Your task to perform on an android device: check google app version Image 0: 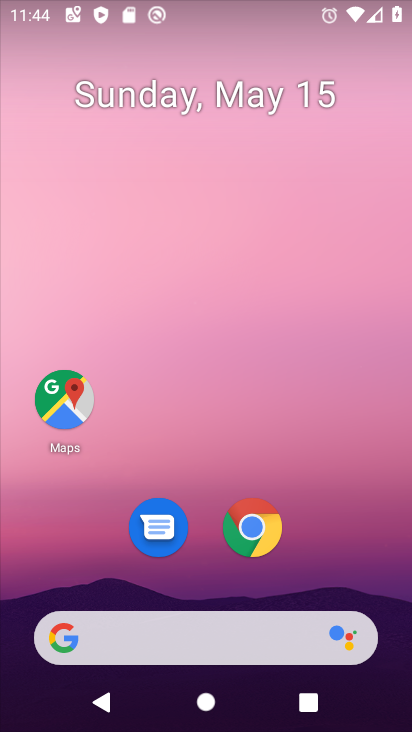
Step 0: click (280, 528)
Your task to perform on an android device: check google app version Image 1: 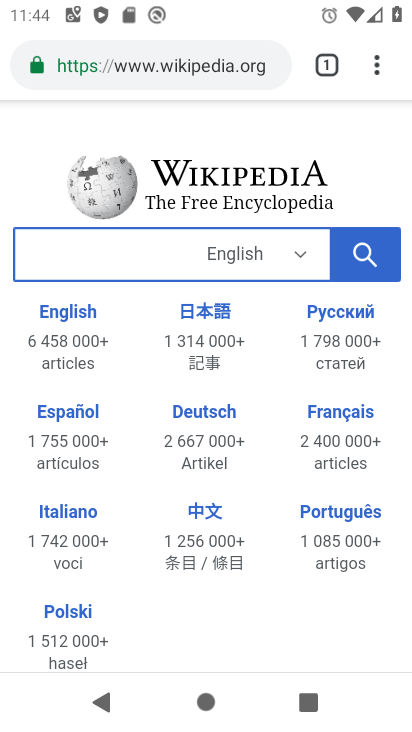
Step 1: click (385, 66)
Your task to perform on an android device: check google app version Image 2: 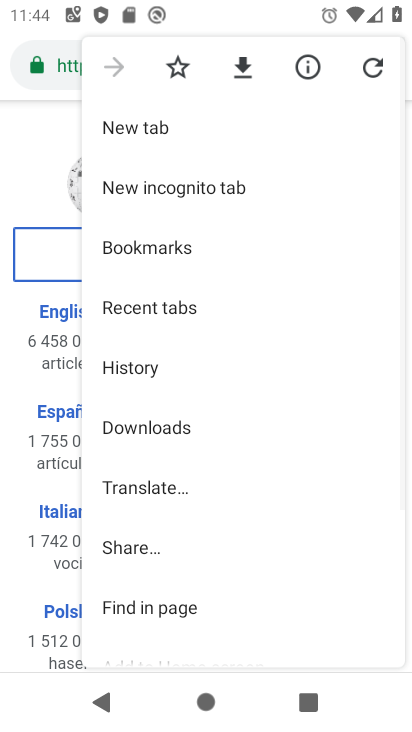
Step 2: drag from (217, 639) to (211, 262)
Your task to perform on an android device: check google app version Image 3: 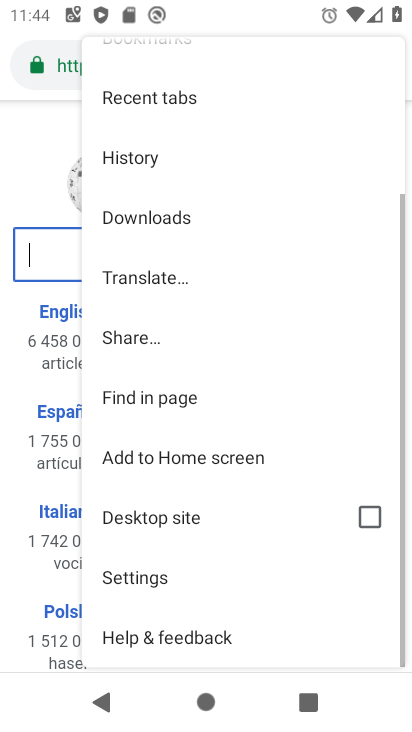
Step 3: drag from (225, 506) to (283, 194)
Your task to perform on an android device: check google app version Image 4: 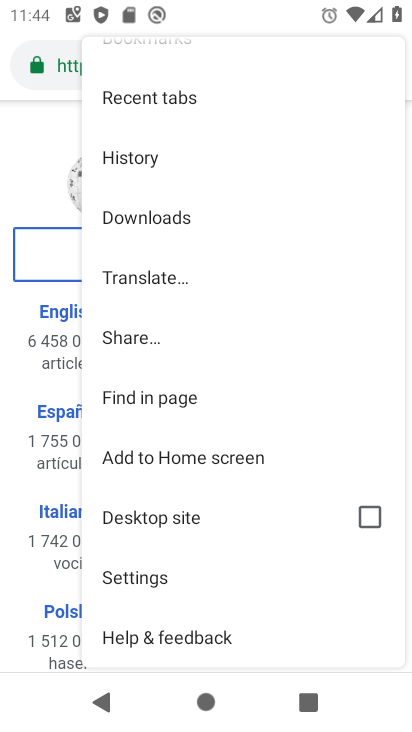
Step 4: click (211, 619)
Your task to perform on an android device: check google app version Image 5: 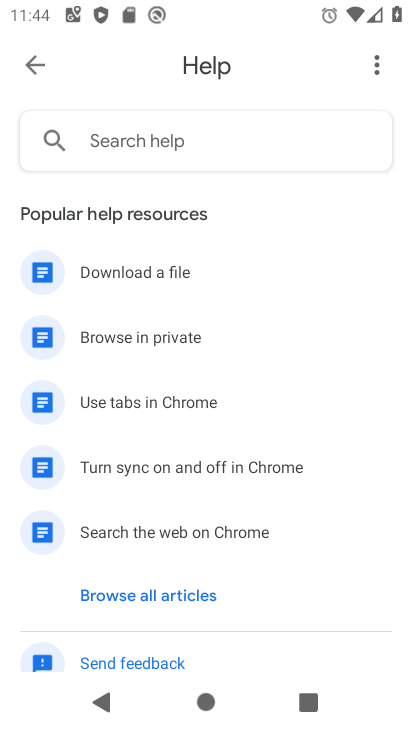
Step 5: drag from (219, 523) to (244, 56)
Your task to perform on an android device: check google app version Image 6: 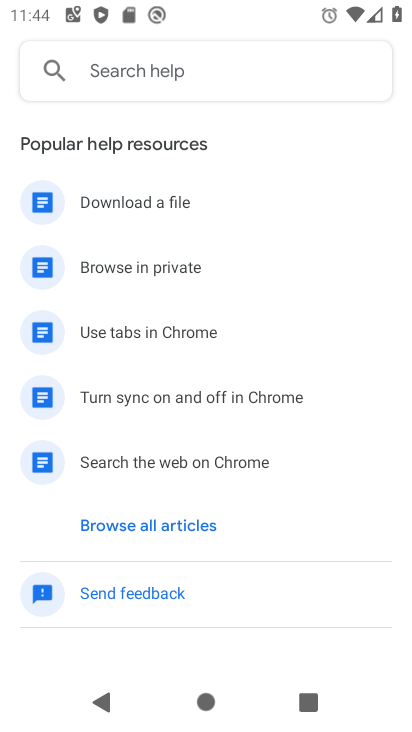
Step 6: click (107, 706)
Your task to perform on an android device: check google app version Image 7: 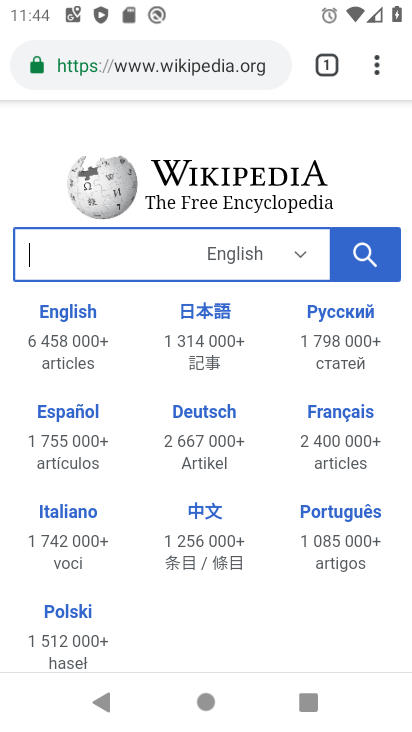
Step 7: click (377, 54)
Your task to perform on an android device: check google app version Image 8: 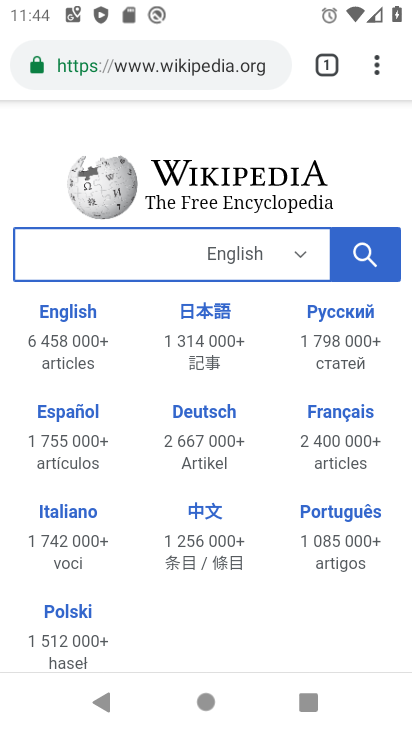
Step 8: click (377, 54)
Your task to perform on an android device: check google app version Image 9: 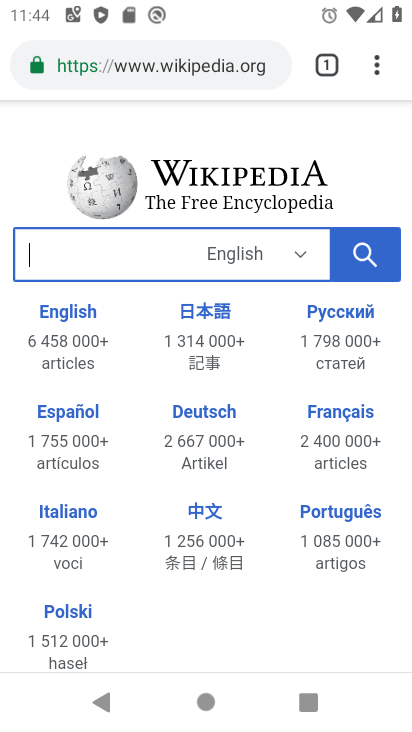
Step 9: press home button
Your task to perform on an android device: check google app version Image 10: 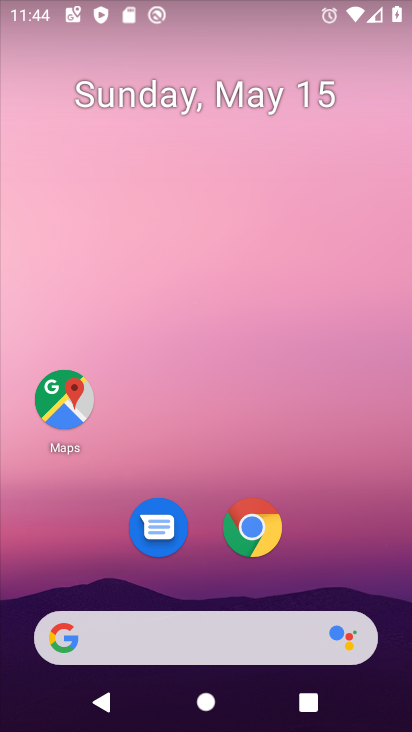
Step 10: drag from (339, 572) to (340, 290)
Your task to perform on an android device: check google app version Image 11: 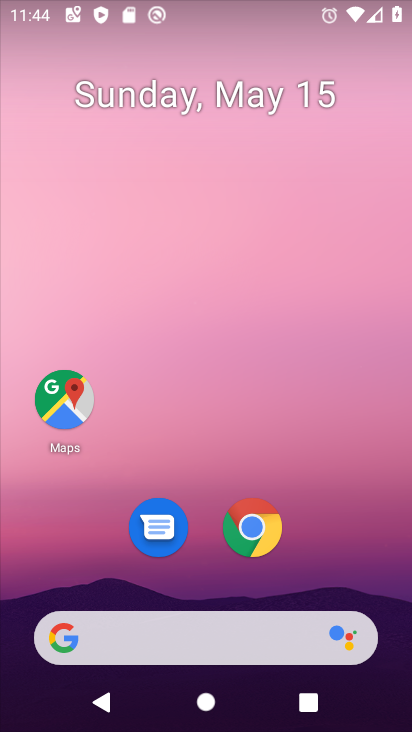
Step 11: click (271, 529)
Your task to perform on an android device: check google app version Image 12: 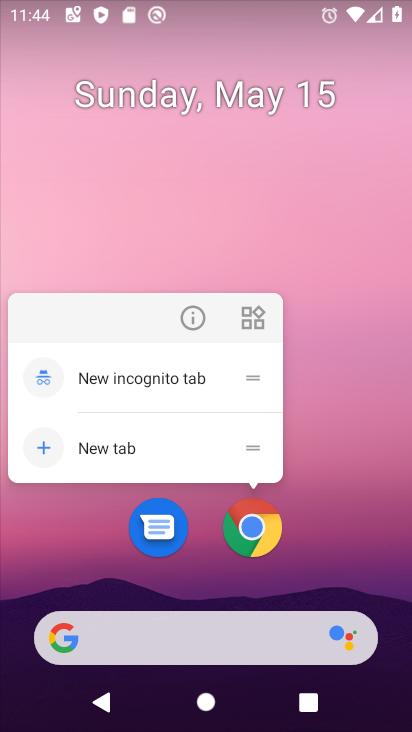
Step 12: click (190, 314)
Your task to perform on an android device: check google app version Image 13: 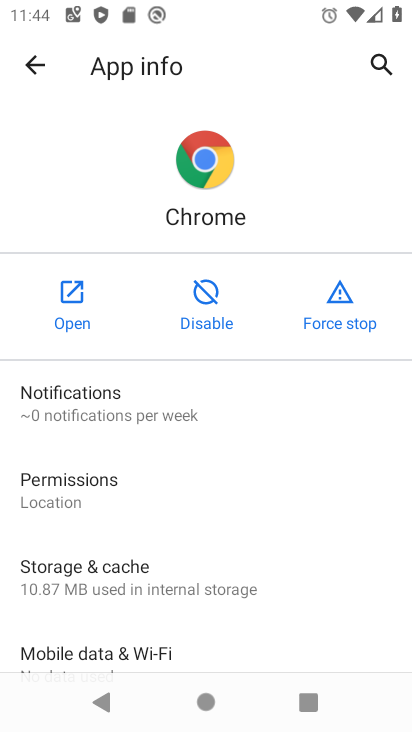
Step 13: drag from (166, 559) to (203, 282)
Your task to perform on an android device: check google app version Image 14: 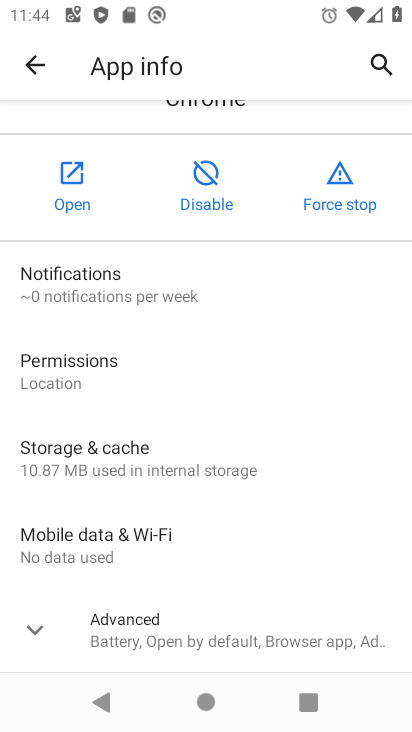
Step 14: click (207, 623)
Your task to perform on an android device: check google app version Image 15: 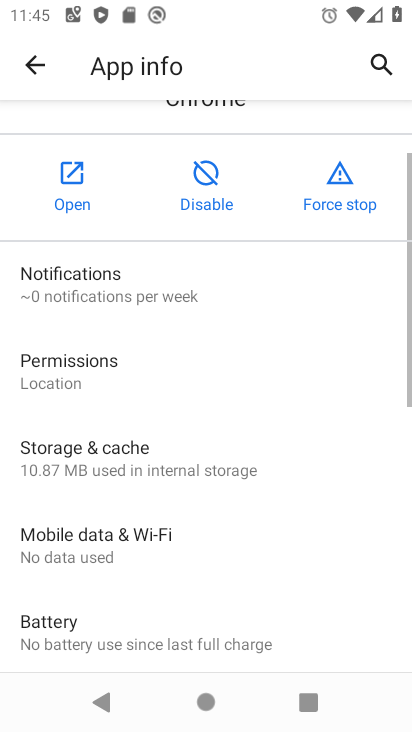
Step 15: task complete